Your task to perform on an android device: Clear all items from cart on costco. Search for "asus rog" on costco, select the first entry, and add it to the cart. Image 0: 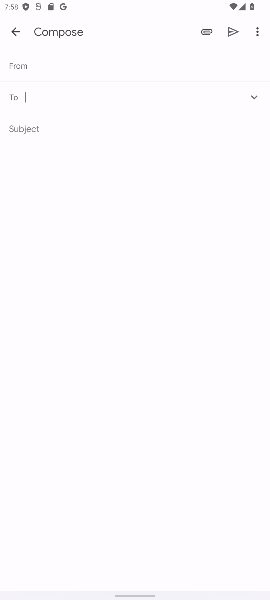
Step 0: press home button
Your task to perform on an android device: Clear all items from cart on costco. Search for "asus rog" on costco, select the first entry, and add it to the cart. Image 1: 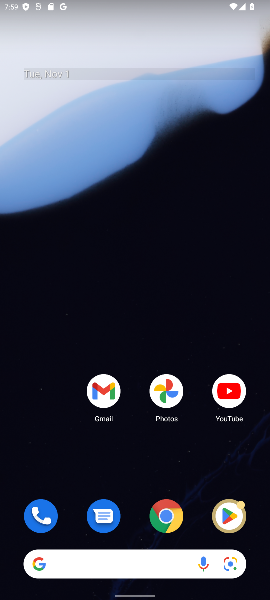
Step 1: drag from (155, 279) to (185, 100)
Your task to perform on an android device: Clear all items from cart on costco. Search for "asus rog" on costco, select the first entry, and add it to the cart. Image 2: 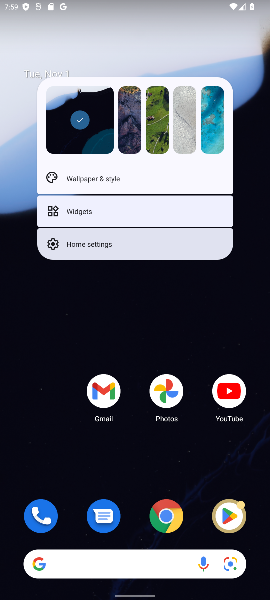
Step 2: click (145, 451)
Your task to perform on an android device: Clear all items from cart on costco. Search for "asus rog" on costco, select the first entry, and add it to the cart. Image 3: 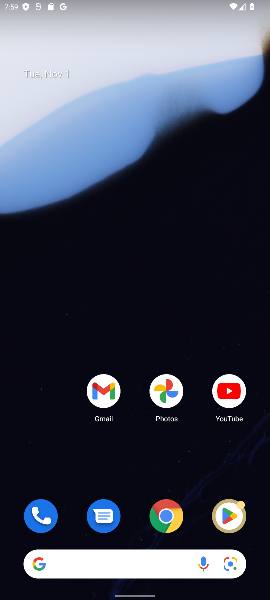
Step 3: drag from (143, 471) to (163, 61)
Your task to perform on an android device: Clear all items from cart on costco. Search for "asus rog" on costco, select the first entry, and add it to the cart. Image 4: 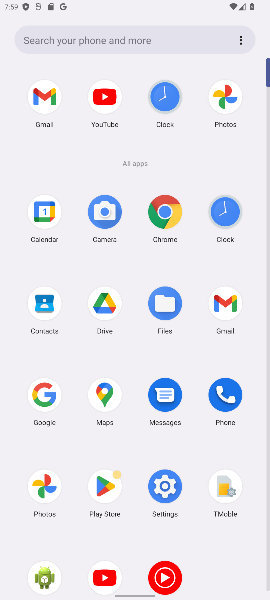
Step 4: click (167, 215)
Your task to perform on an android device: Clear all items from cart on costco. Search for "asus rog" on costco, select the first entry, and add it to the cart. Image 5: 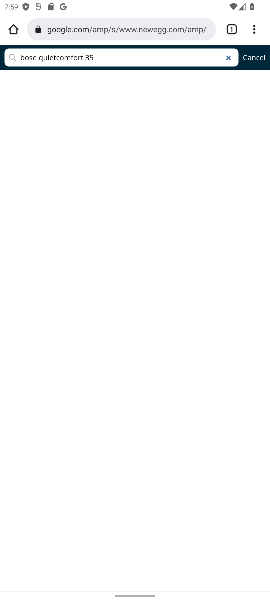
Step 5: click (106, 28)
Your task to perform on an android device: Clear all items from cart on costco. Search for "asus rog" on costco, select the first entry, and add it to the cart. Image 6: 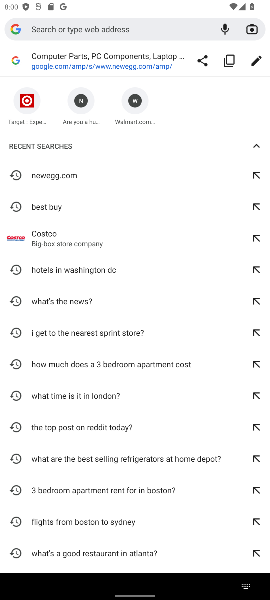
Step 6: type "costco"
Your task to perform on an android device: Clear all items from cart on costco. Search for "asus rog" on costco, select the first entry, and add it to the cart. Image 7: 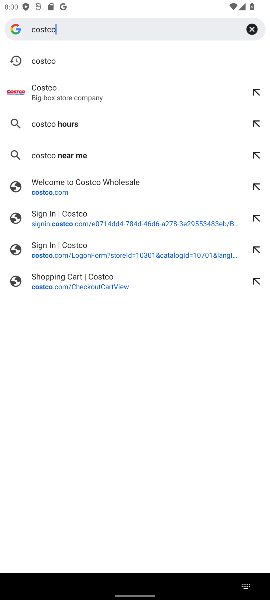
Step 7: click (51, 58)
Your task to perform on an android device: Clear all items from cart on costco. Search for "asus rog" on costco, select the first entry, and add it to the cart. Image 8: 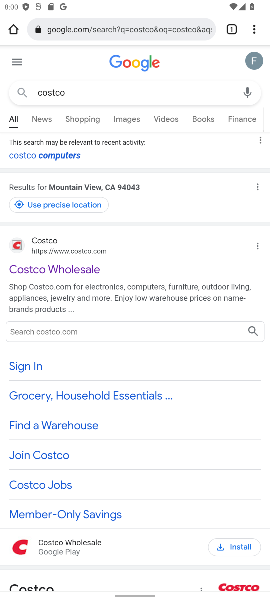
Step 8: click (65, 271)
Your task to perform on an android device: Clear all items from cart on costco. Search for "asus rog" on costco, select the first entry, and add it to the cart. Image 9: 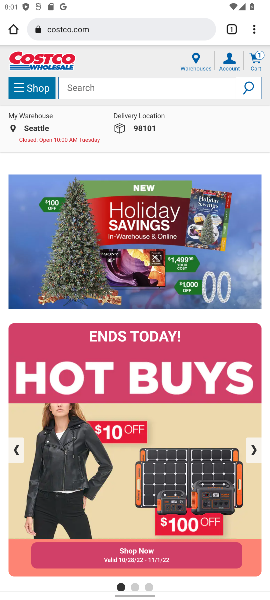
Step 9: click (95, 85)
Your task to perform on an android device: Clear all items from cart on costco. Search for "asus rog" on costco, select the first entry, and add it to the cart. Image 10: 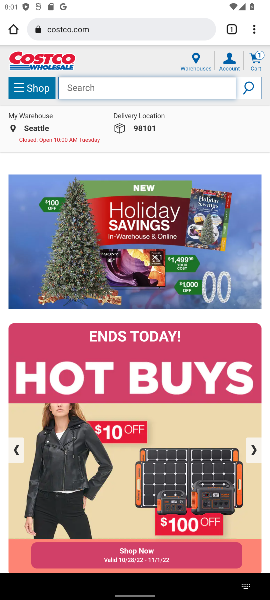
Step 10: click (108, 89)
Your task to perform on an android device: Clear all items from cart on costco. Search for "asus rog" on costco, select the first entry, and add it to the cart. Image 11: 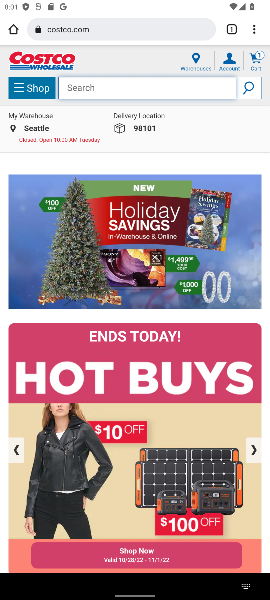
Step 11: type "asus rog"
Your task to perform on an android device: Clear all items from cart on costco. Search for "asus rog" on costco, select the first entry, and add it to the cart. Image 12: 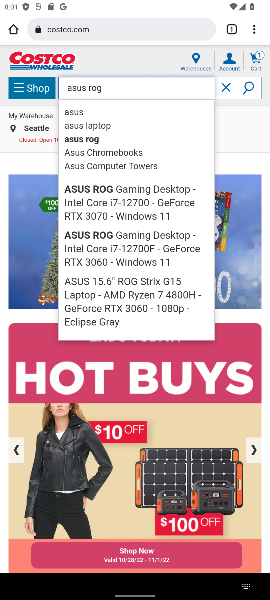
Step 12: click (98, 139)
Your task to perform on an android device: Clear all items from cart on costco. Search for "asus rog" on costco, select the first entry, and add it to the cart. Image 13: 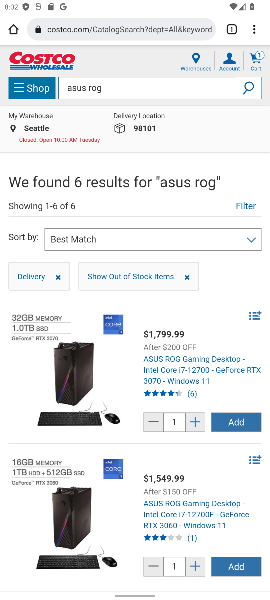
Step 13: task complete